Your task to perform on an android device: delete location history Image 0: 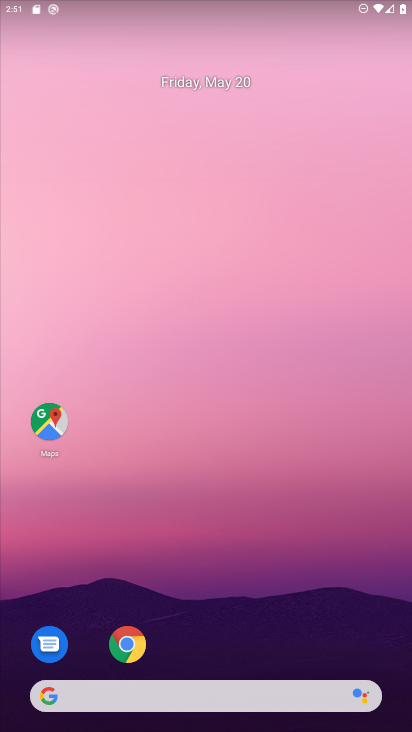
Step 0: click (48, 423)
Your task to perform on an android device: delete location history Image 1: 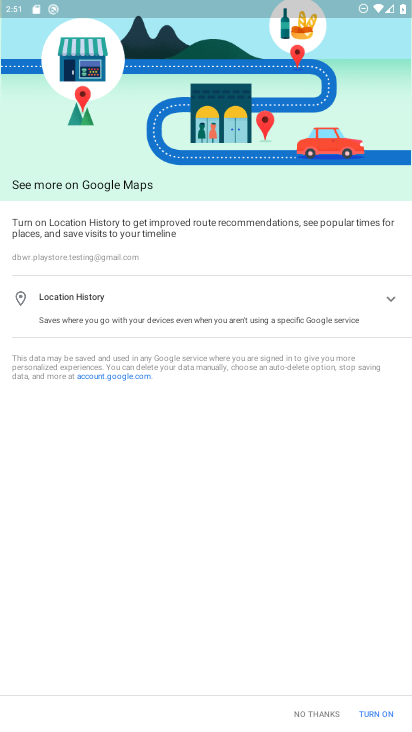
Step 1: click (306, 718)
Your task to perform on an android device: delete location history Image 2: 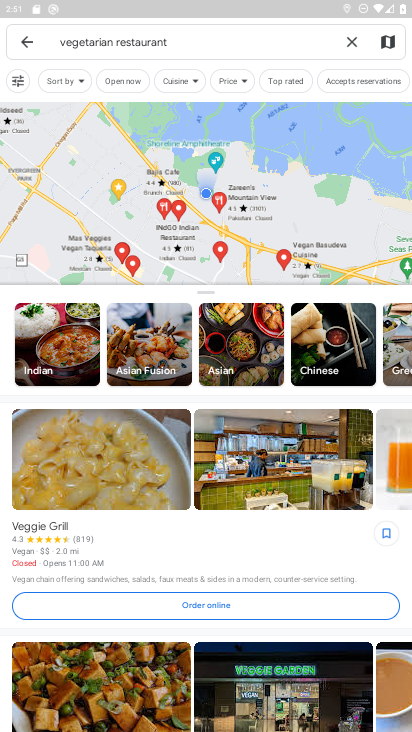
Step 2: click (349, 37)
Your task to perform on an android device: delete location history Image 3: 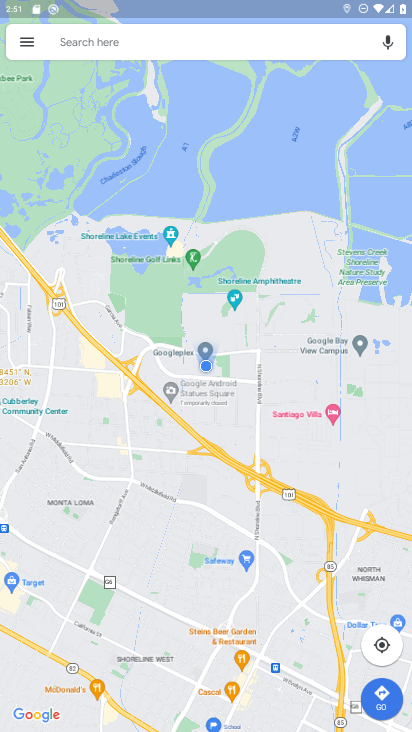
Step 3: click (24, 37)
Your task to perform on an android device: delete location history Image 4: 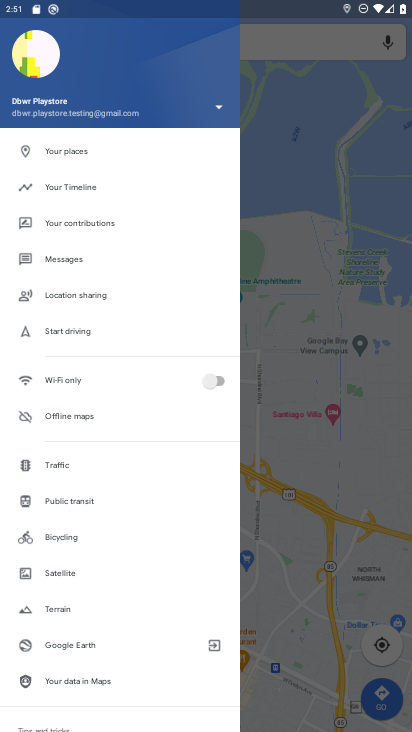
Step 4: drag from (81, 627) to (108, 512)
Your task to perform on an android device: delete location history Image 5: 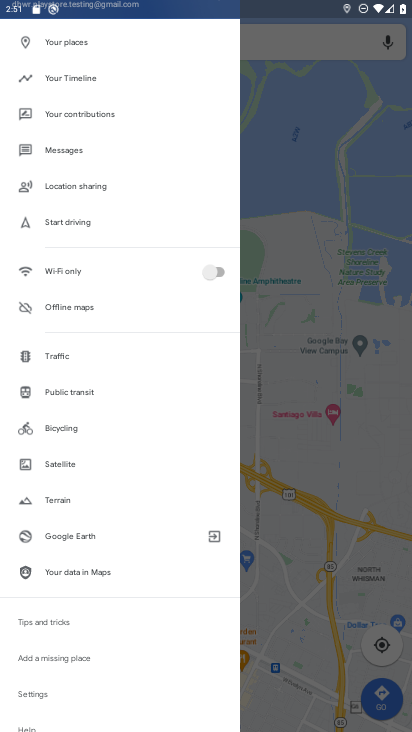
Step 5: drag from (77, 645) to (124, 561)
Your task to perform on an android device: delete location history Image 6: 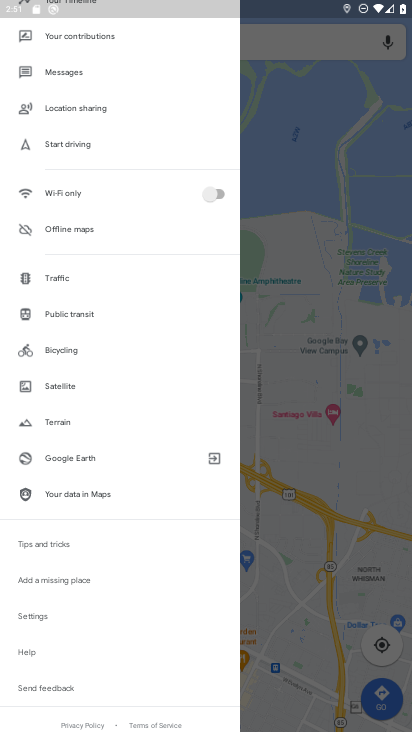
Step 6: click (33, 615)
Your task to perform on an android device: delete location history Image 7: 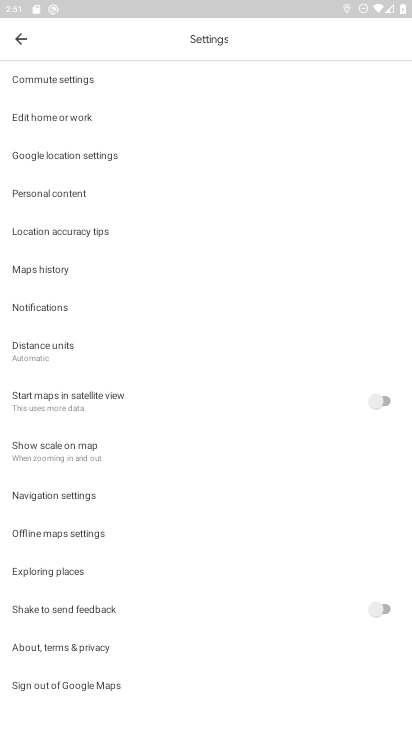
Step 7: click (86, 194)
Your task to perform on an android device: delete location history Image 8: 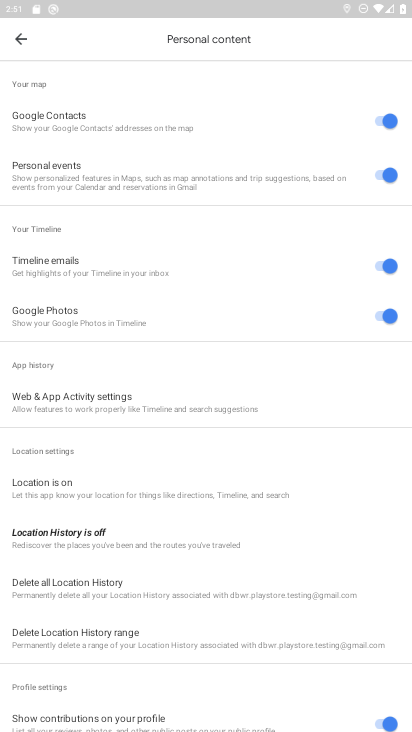
Step 8: drag from (146, 575) to (167, 442)
Your task to perform on an android device: delete location history Image 9: 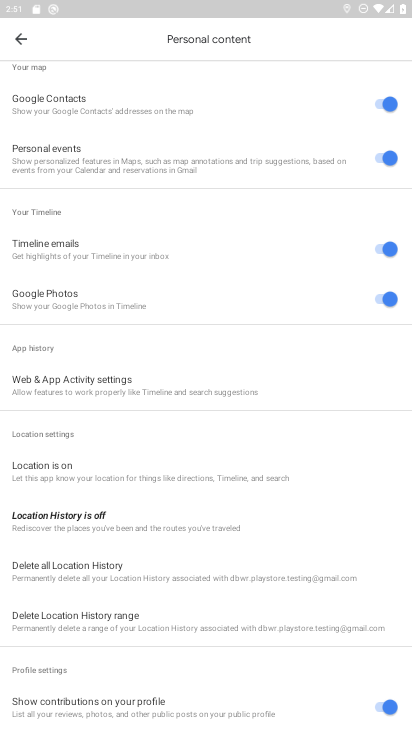
Step 9: click (125, 569)
Your task to perform on an android device: delete location history Image 10: 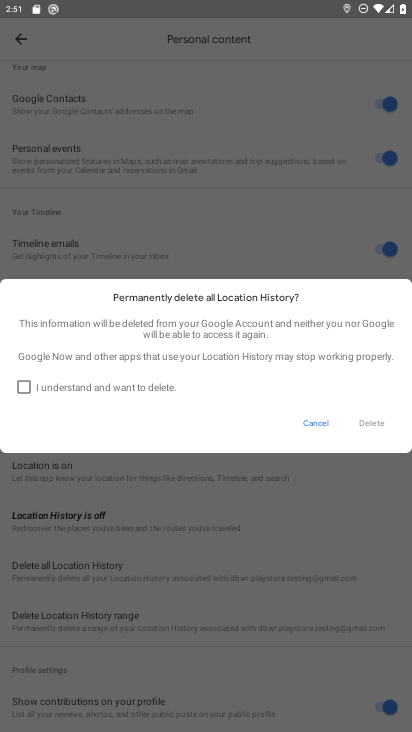
Step 10: click (25, 382)
Your task to perform on an android device: delete location history Image 11: 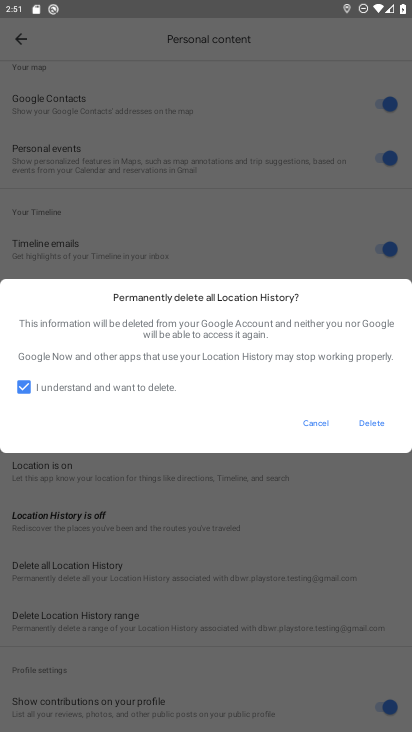
Step 11: click (375, 421)
Your task to perform on an android device: delete location history Image 12: 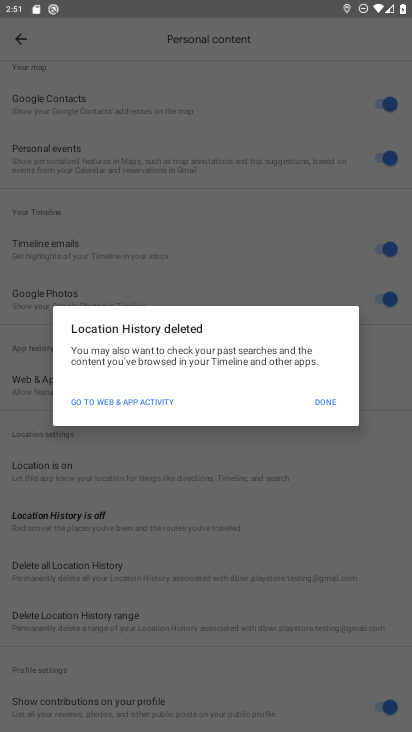
Step 12: click (326, 407)
Your task to perform on an android device: delete location history Image 13: 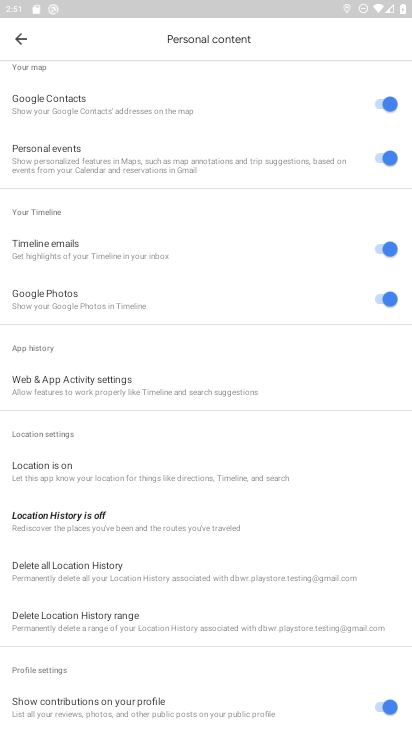
Step 13: task complete